Your task to perform on an android device: clear all cookies in the chrome app Image 0: 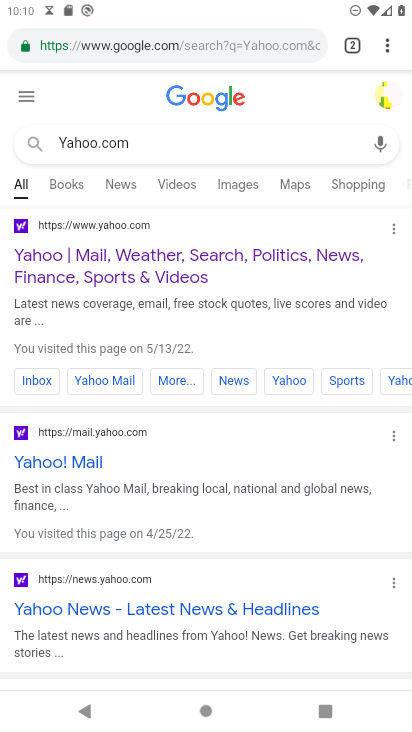
Step 0: click (391, 54)
Your task to perform on an android device: clear all cookies in the chrome app Image 1: 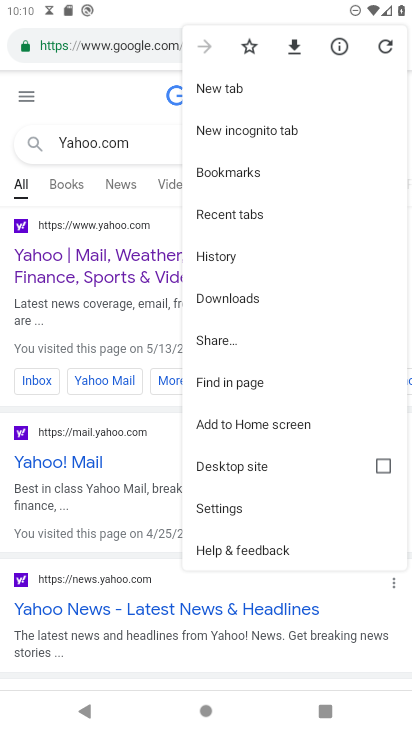
Step 1: click (206, 249)
Your task to perform on an android device: clear all cookies in the chrome app Image 2: 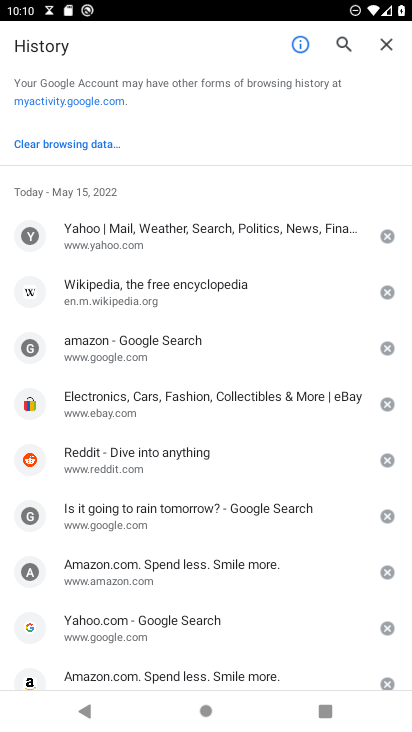
Step 2: click (90, 151)
Your task to perform on an android device: clear all cookies in the chrome app Image 3: 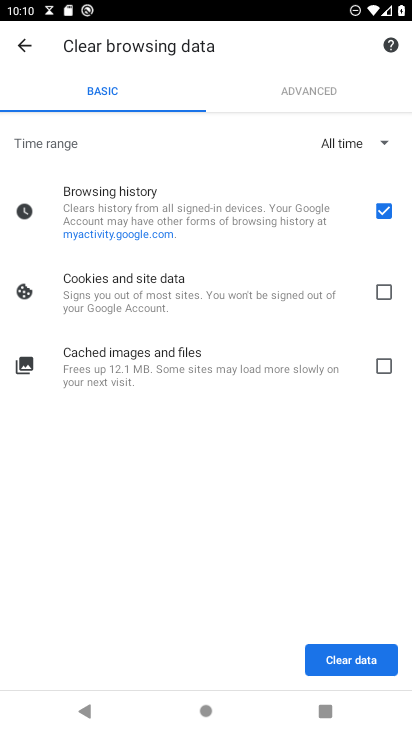
Step 3: click (385, 216)
Your task to perform on an android device: clear all cookies in the chrome app Image 4: 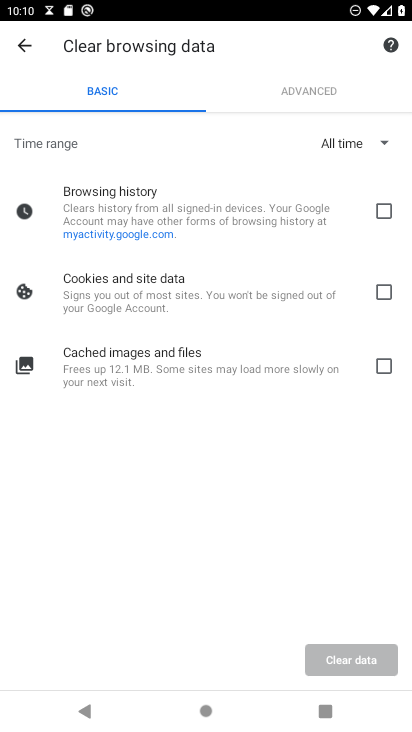
Step 4: click (387, 297)
Your task to perform on an android device: clear all cookies in the chrome app Image 5: 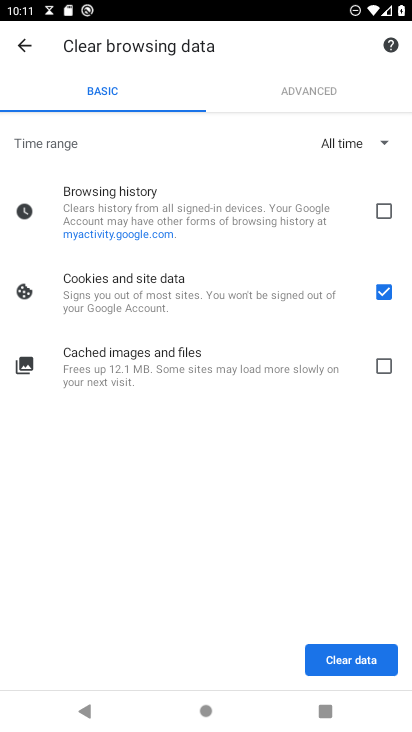
Step 5: click (365, 654)
Your task to perform on an android device: clear all cookies in the chrome app Image 6: 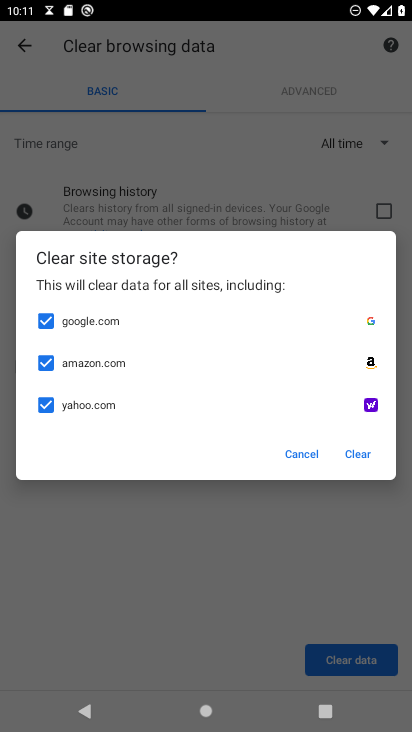
Step 6: click (358, 460)
Your task to perform on an android device: clear all cookies in the chrome app Image 7: 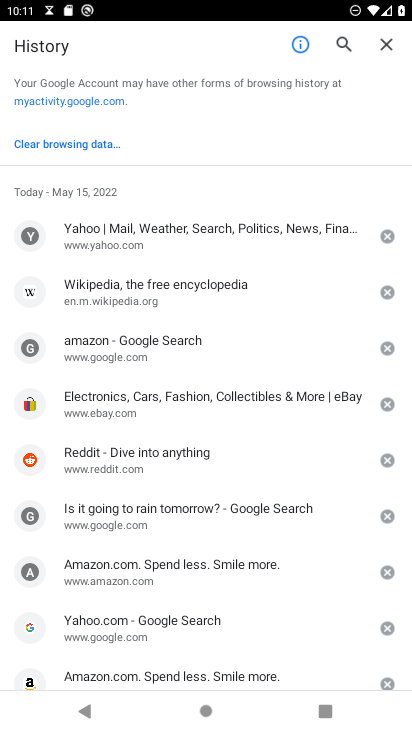
Step 7: task complete